Your task to perform on an android device: Go to location settings Image 0: 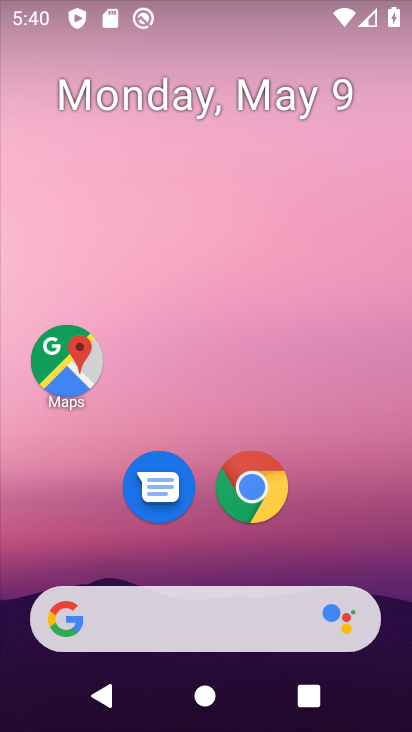
Step 0: drag from (312, 573) to (262, 52)
Your task to perform on an android device: Go to location settings Image 1: 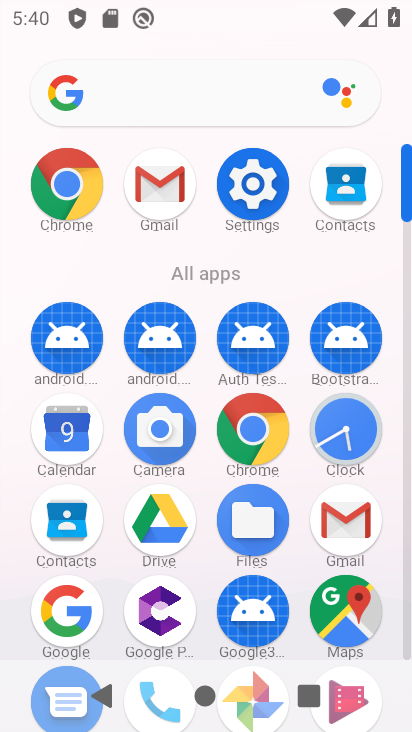
Step 1: click (254, 207)
Your task to perform on an android device: Go to location settings Image 2: 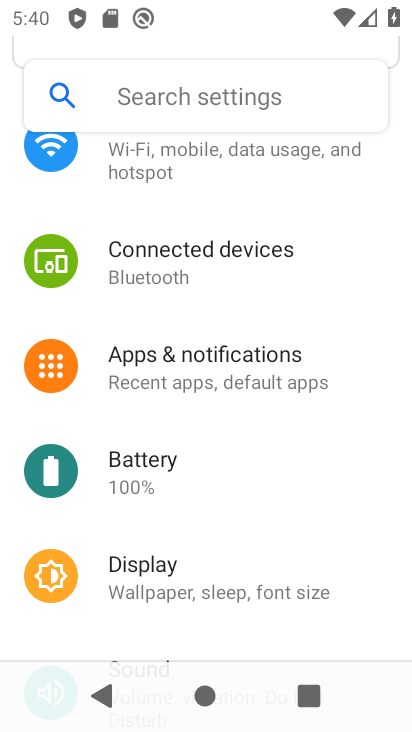
Step 2: drag from (196, 566) to (228, 94)
Your task to perform on an android device: Go to location settings Image 3: 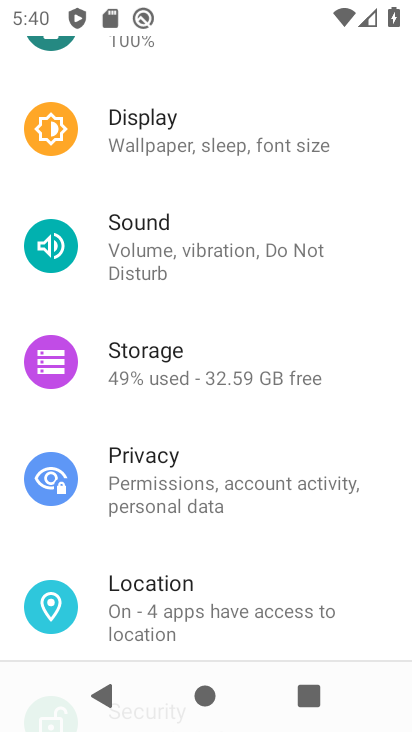
Step 3: click (143, 613)
Your task to perform on an android device: Go to location settings Image 4: 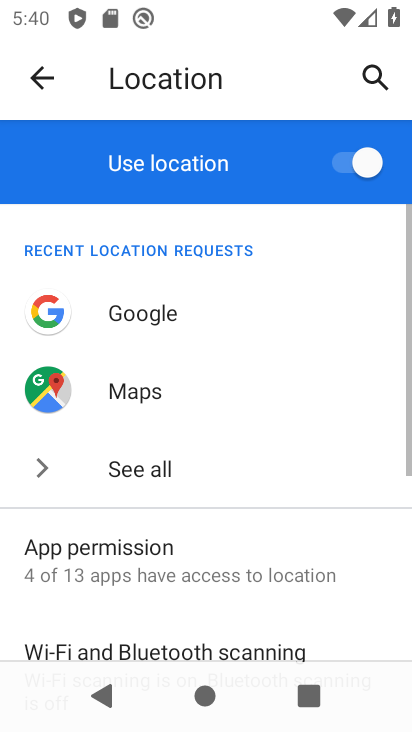
Step 4: task complete